Your task to perform on an android device: See recent photos Image 0: 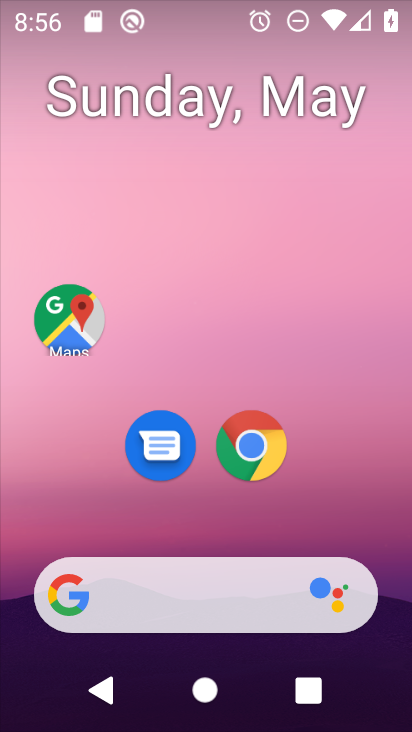
Step 0: drag from (275, 290) to (286, 136)
Your task to perform on an android device: See recent photos Image 1: 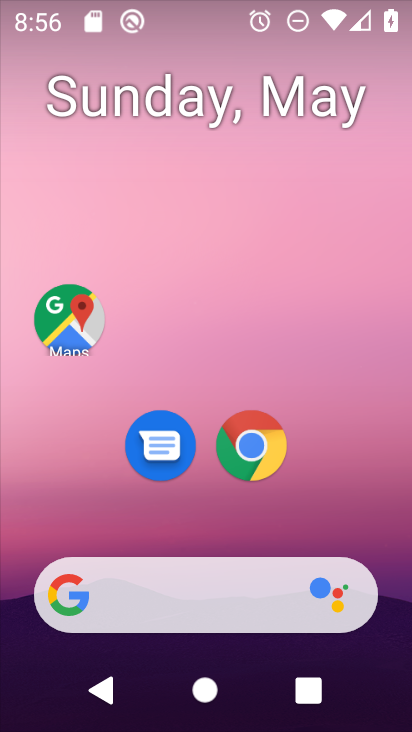
Step 1: drag from (230, 651) to (301, 158)
Your task to perform on an android device: See recent photos Image 2: 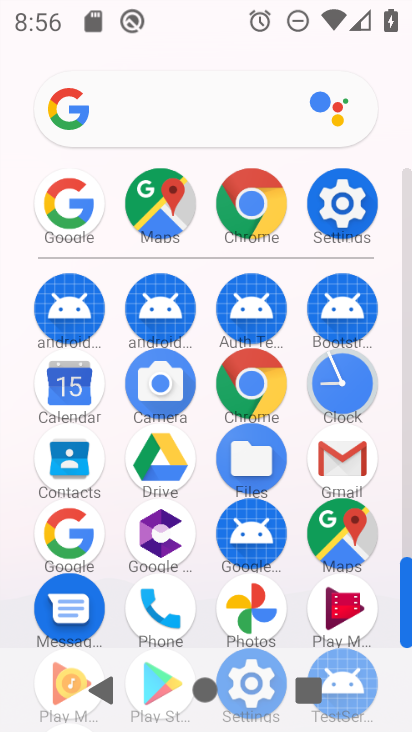
Step 2: drag from (291, 537) to (346, 165)
Your task to perform on an android device: See recent photos Image 3: 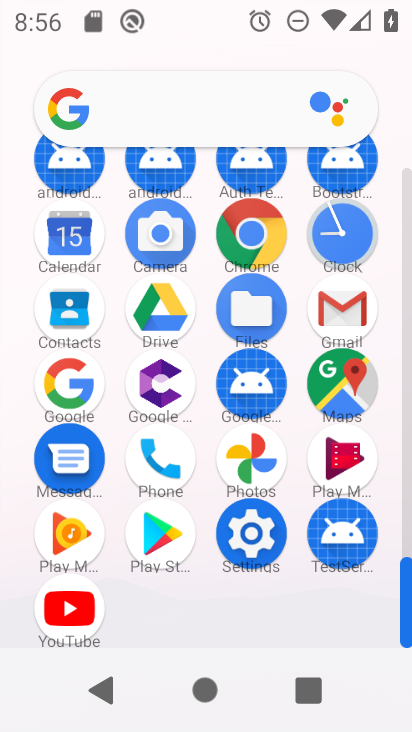
Step 3: click (259, 464)
Your task to perform on an android device: See recent photos Image 4: 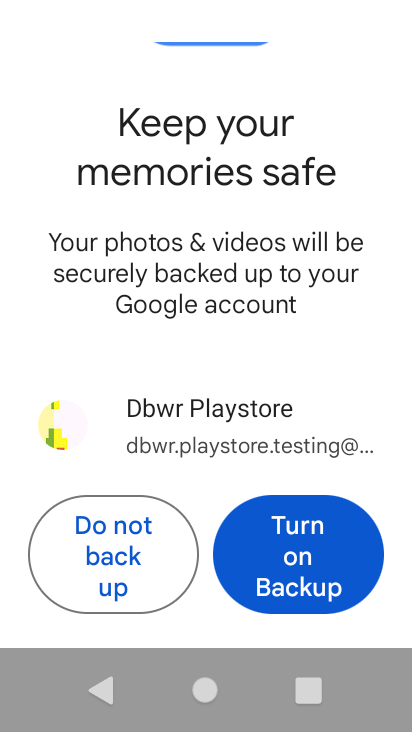
Step 4: task complete